Your task to perform on an android device: What's the weather going to be this weekend? Image 0: 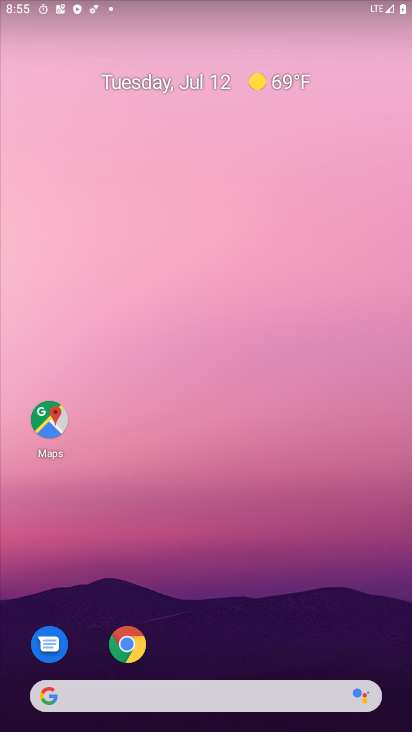
Step 0: drag from (222, 650) to (219, 127)
Your task to perform on an android device: What's the weather going to be this weekend? Image 1: 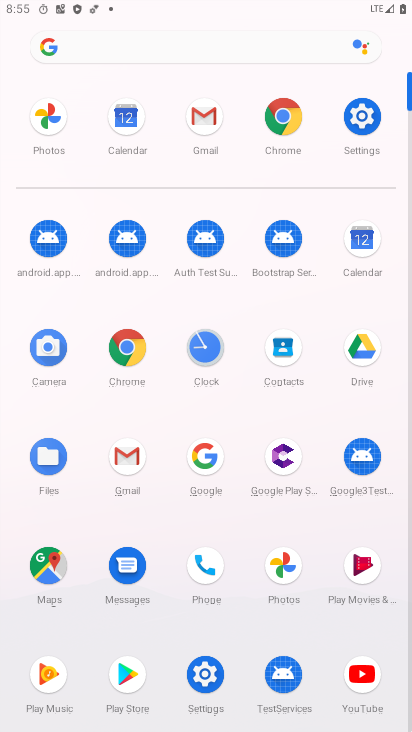
Step 1: press back button
Your task to perform on an android device: What's the weather going to be this weekend? Image 2: 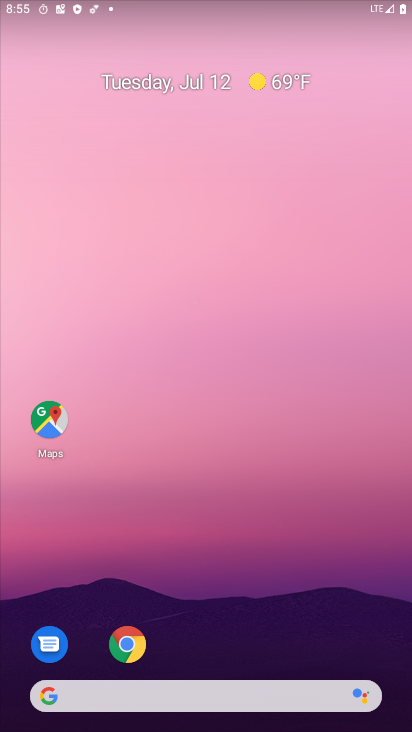
Step 2: click (228, 693)
Your task to perform on an android device: What's the weather going to be this weekend? Image 3: 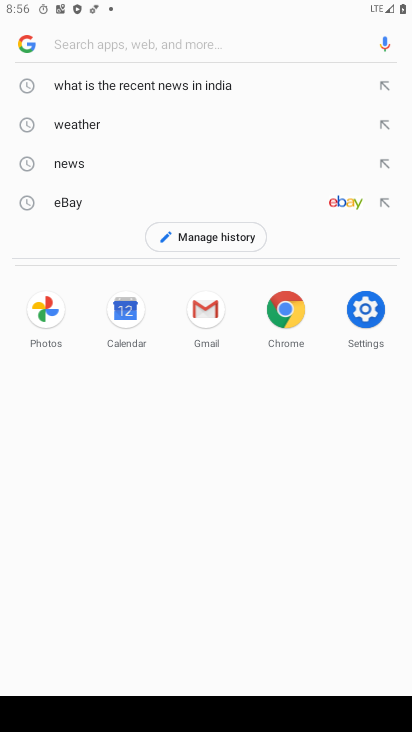
Step 3: click (89, 122)
Your task to perform on an android device: What's the weather going to be this weekend? Image 4: 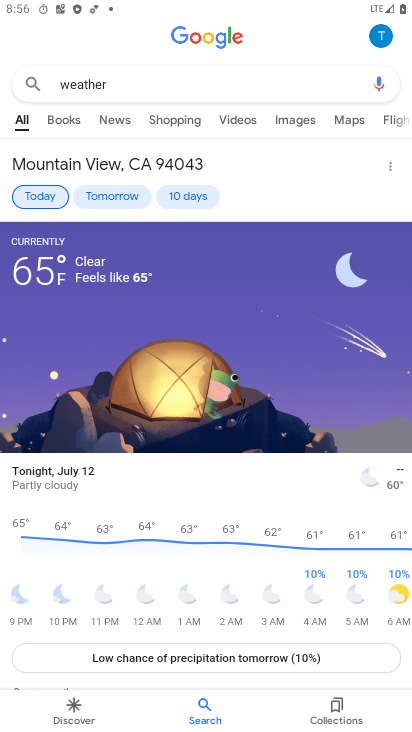
Step 4: click (179, 198)
Your task to perform on an android device: What's the weather going to be this weekend? Image 5: 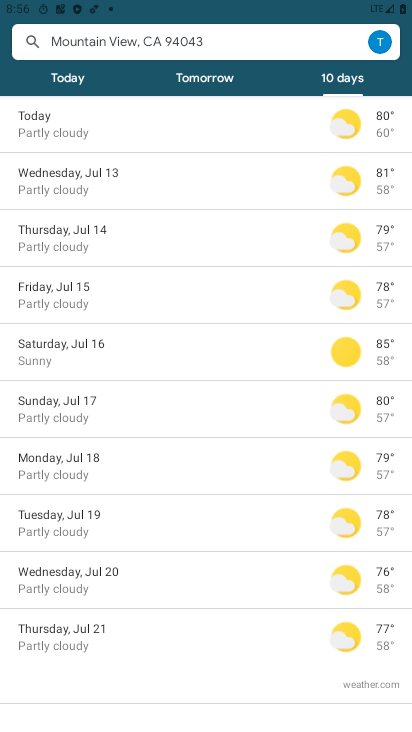
Step 5: task complete